Your task to perform on an android device: Turn on the flashlight Image 0: 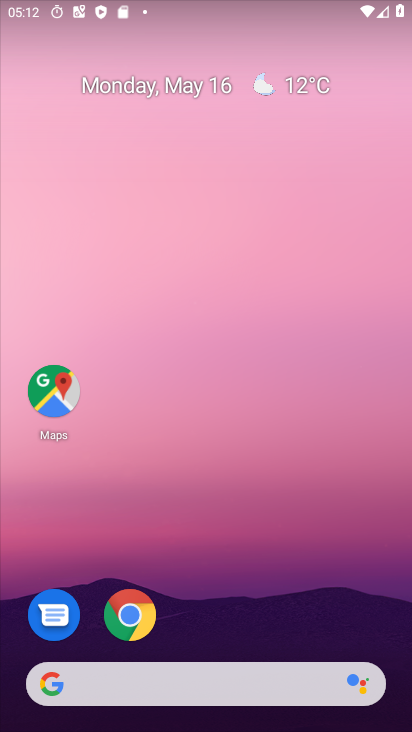
Step 0: drag from (297, 695) to (392, 20)
Your task to perform on an android device: Turn on the flashlight Image 1: 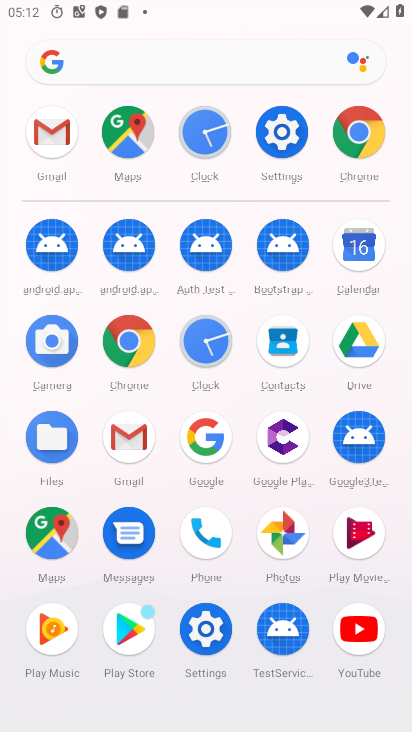
Step 1: task complete